Your task to perform on an android device: Is it going to rain tomorrow? Image 0: 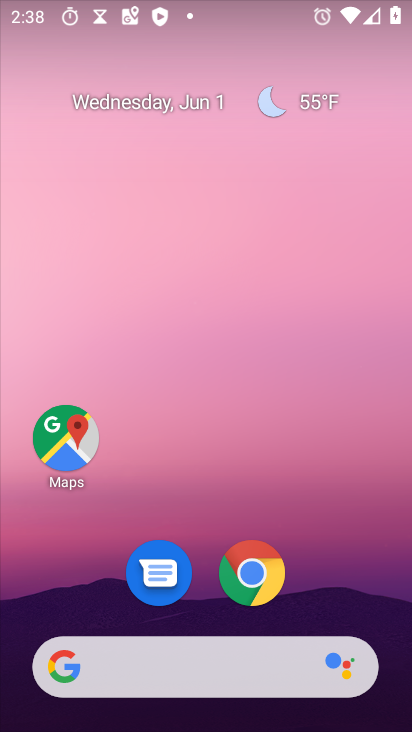
Step 0: drag from (327, 557) to (390, 0)
Your task to perform on an android device: Is it going to rain tomorrow? Image 1: 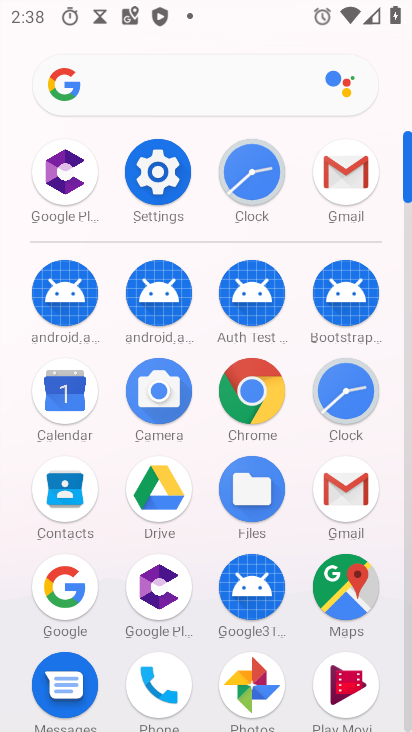
Step 1: click (68, 77)
Your task to perform on an android device: Is it going to rain tomorrow? Image 2: 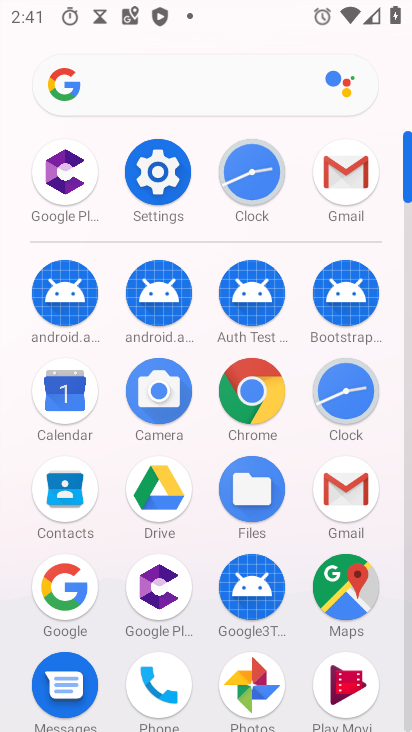
Step 2: click (69, 88)
Your task to perform on an android device: Is it going to rain tomorrow? Image 3: 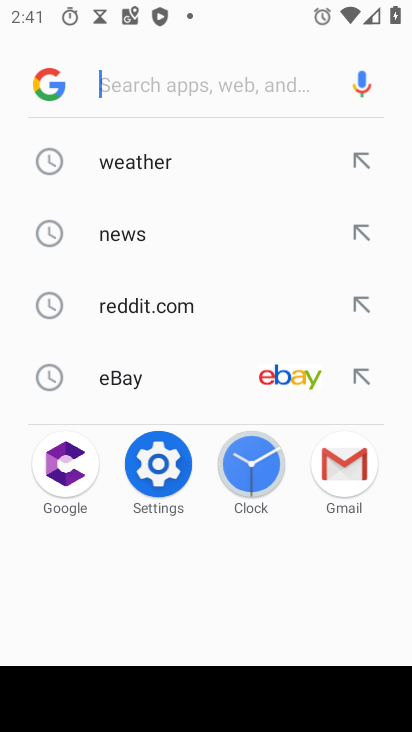
Step 3: click (69, 88)
Your task to perform on an android device: Is it going to rain tomorrow? Image 4: 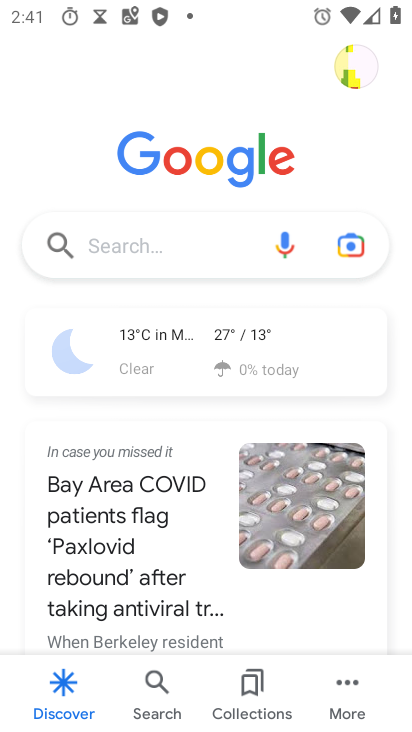
Step 4: click (164, 369)
Your task to perform on an android device: Is it going to rain tomorrow? Image 5: 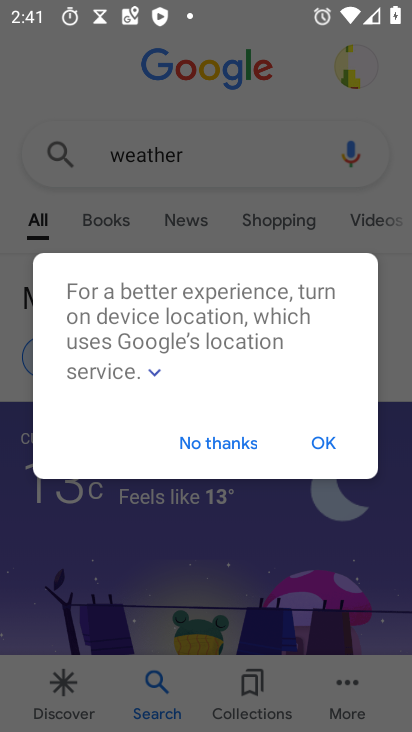
Step 5: task complete